Your task to perform on an android device: What is the recent news? Image 0: 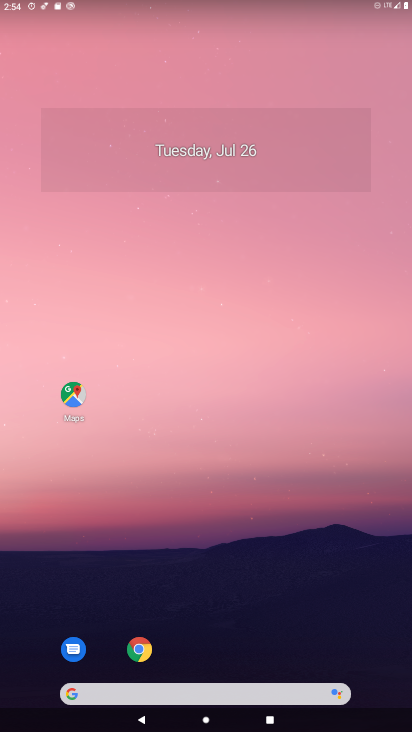
Step 0: drag from (240, 352) to (19, 59)
Your task to perform on an android device: What is the recent news? Image 1: 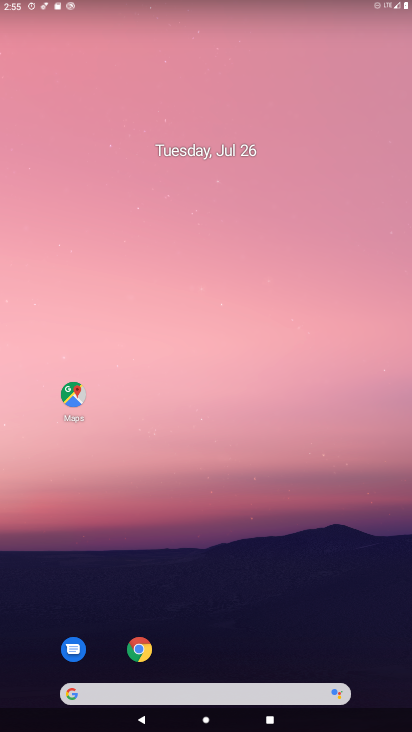
Step 1: drag from (326, 629) to (134, 0)
Your task to perform on an android device: What is the recent news? Image 2: 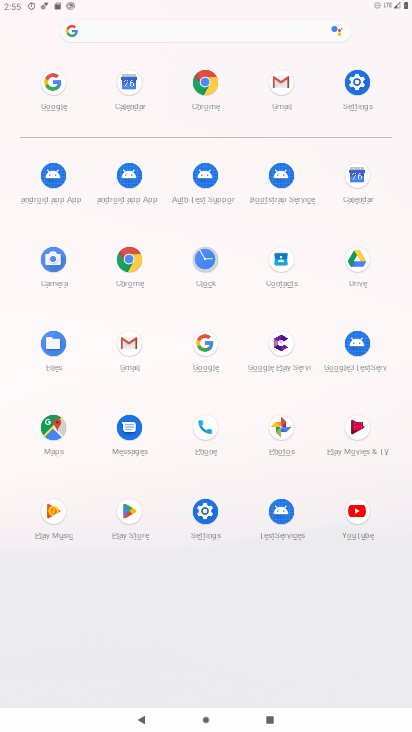
Step 2: click (204, 352)
Your task to perform on an android device: What is the recent news? Image 3: 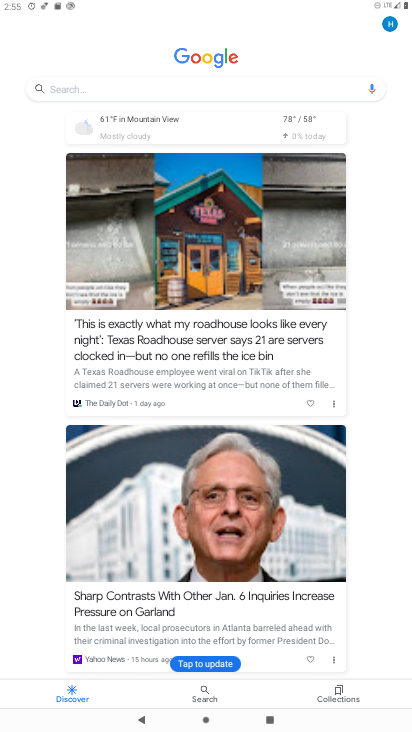
Step 3: click (60, 91)
Your task to perform on an android device: What is the recent news? Image 4: 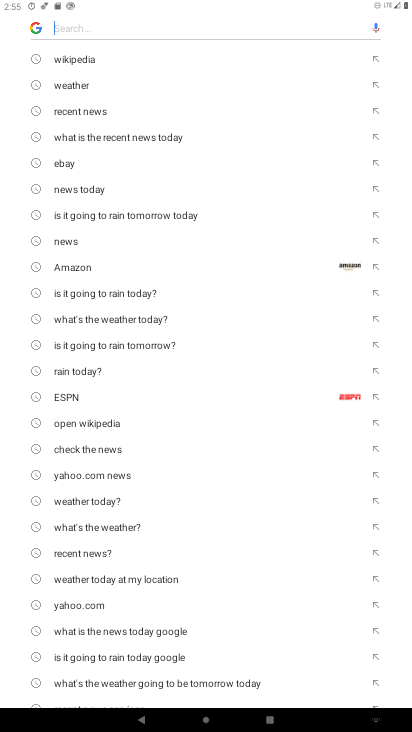
Step 4: click (97, 552)
Your task to perform on an android device: What is the recent news? Image 5: 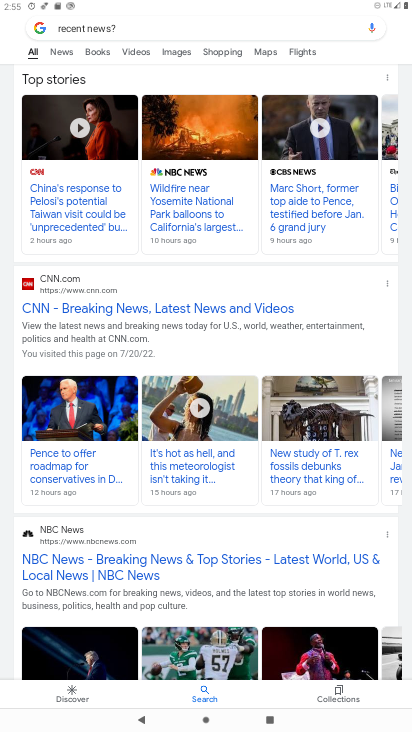
Step 5: task complete